Your task to perform on an android device: open app "ZOOM Cloud Meetings" (install if not already installed), go to login, and select forgot password Image 0: 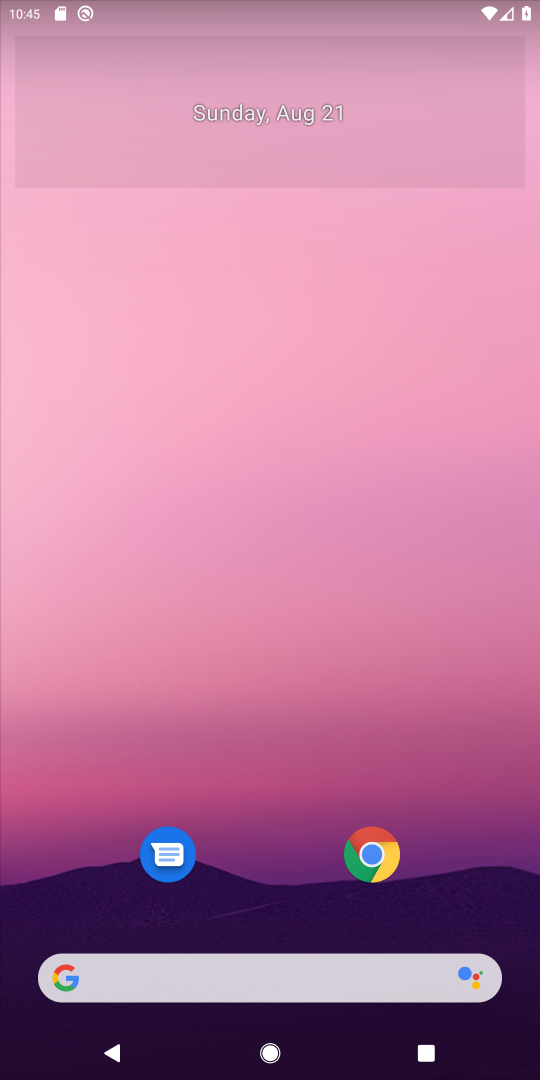
Step 0: drag from (273, 922) to (398, 29)
Your task to perform on an android device: open app "ZOOM Cloud Meetings" (install if not already installed), go to login, and select forgot password Image 1: 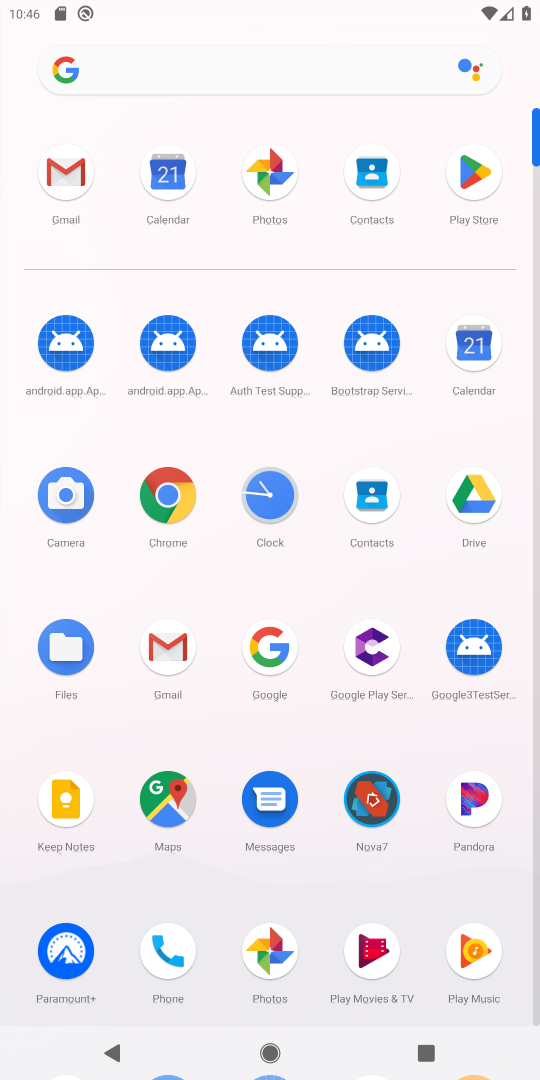
Step 1: click (452, 183)
Your task to perform on an android device: open app "ZOOM Cloud Meetings" (install if not already installed), go to login, and select forgot password Image 2: 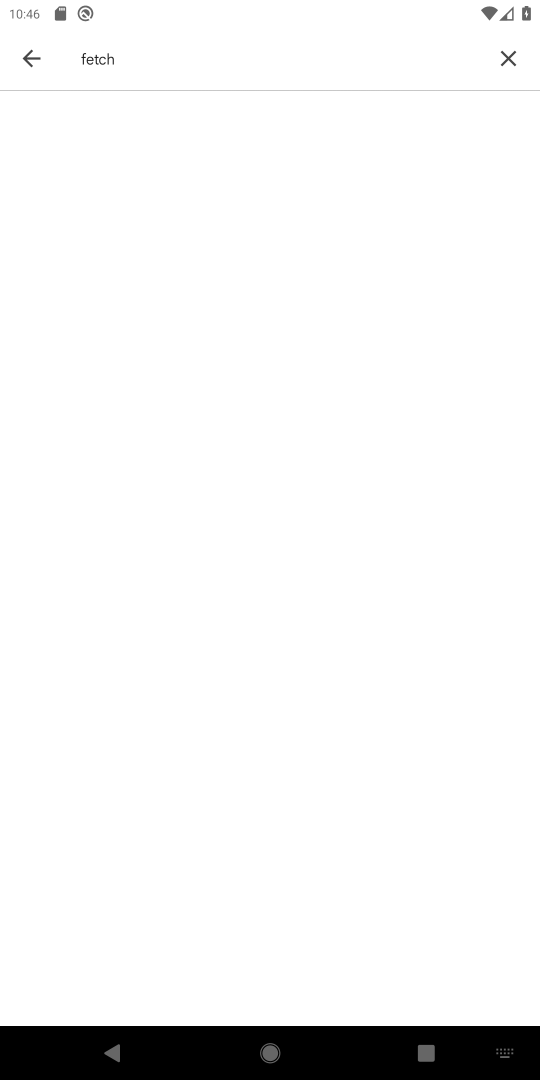
Step 2: click (503, 63)
Your task to perform on an android device: open app "ZOOM Cloud Meetings" (install if not already installed), go to login, and select forgot password Image 3: 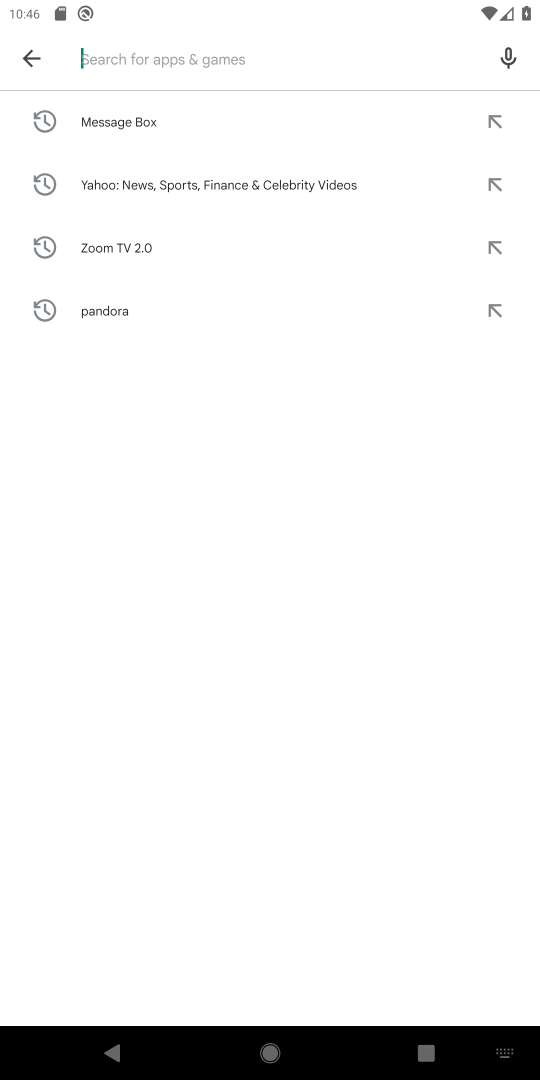
Step 3: type "zoom"
Your task to perform on an android device: open app "ZOOM Cloud Meetings" (install if not already installed), go to login, and select forgot password Image 4: 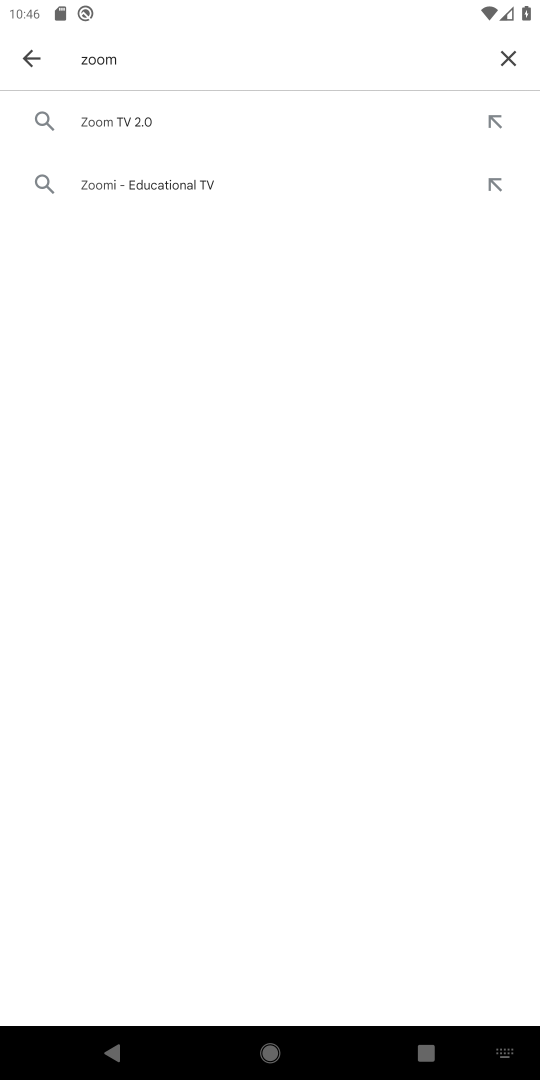
Step 4: click (235, 166)
Your task to perform on an android device: open app "ZOOM Cloud Meetings" (install if not already installed), go to login, and select forgot password Image 5: 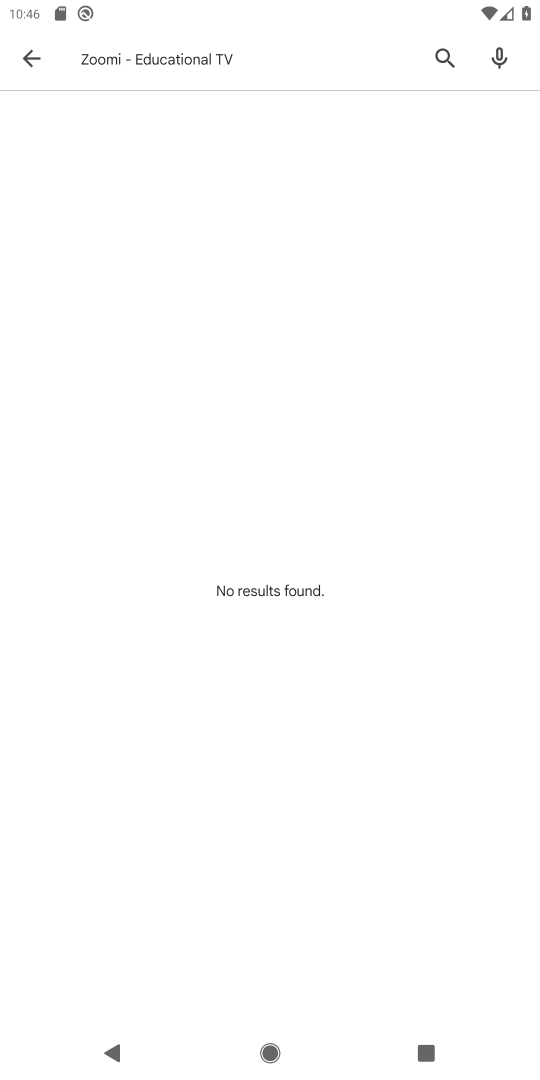
Step 5: click (252, 174)
Your task to perform on an android device: open app "ZOOM Cloud Meetings" (install if not already installed), go to login, and select forgot password Image 6: 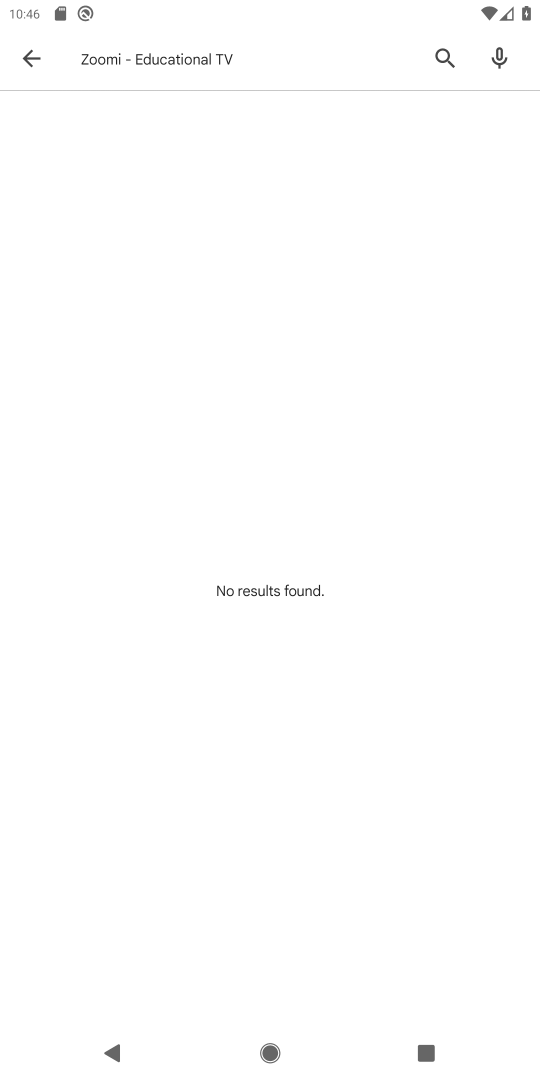
Step 6: task complete